Your task to perform on an android device: Go to Maps Image 0: 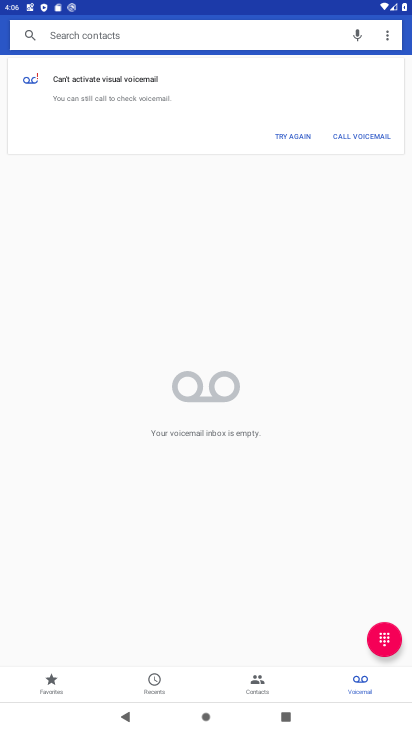
Step 0: press home button
Your task to perform on an android device: Go to Maps Image 1: 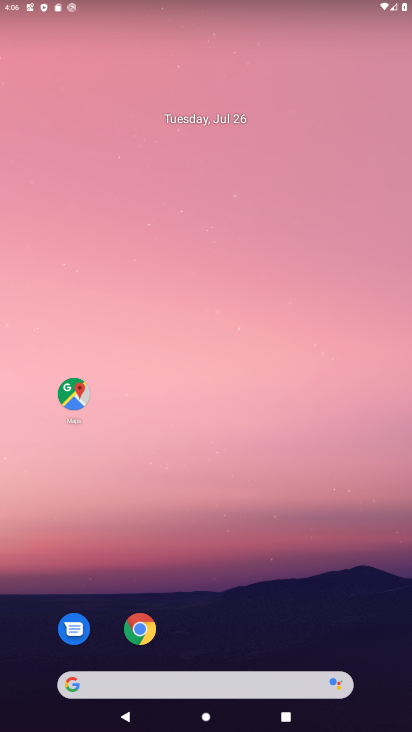
Step 1: click (61, 390)
Your task to perform on an android device: Go to Maps Image 2: 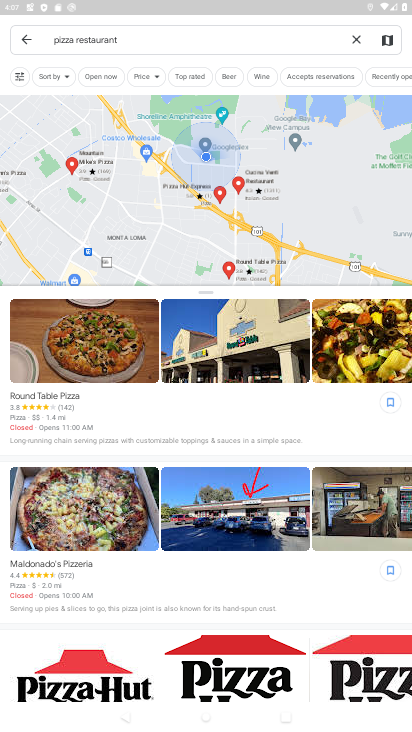
Step 2: task complete